Your task to perform on an android device: Clear the cart on costco.com. Search for "razer nari" on costco.com, select the first entry, and add it to the cart. Image 0: 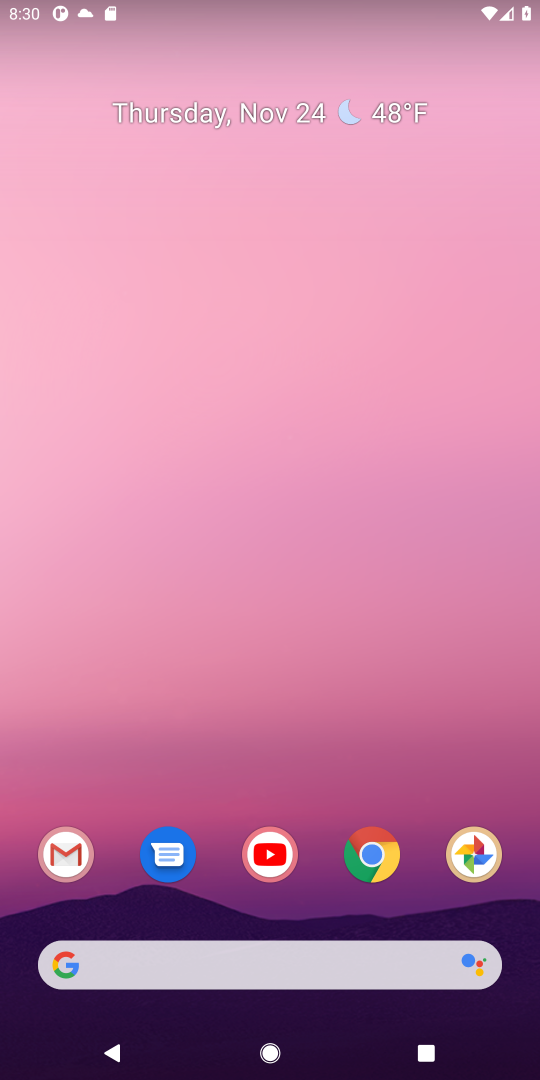
Step 0: click (377, 848)
Your task to perform on an android device: Clear the cart on costco.com. Search for "razer nari" on costco.com, select the first entry, and add it to the cart. Image 1: 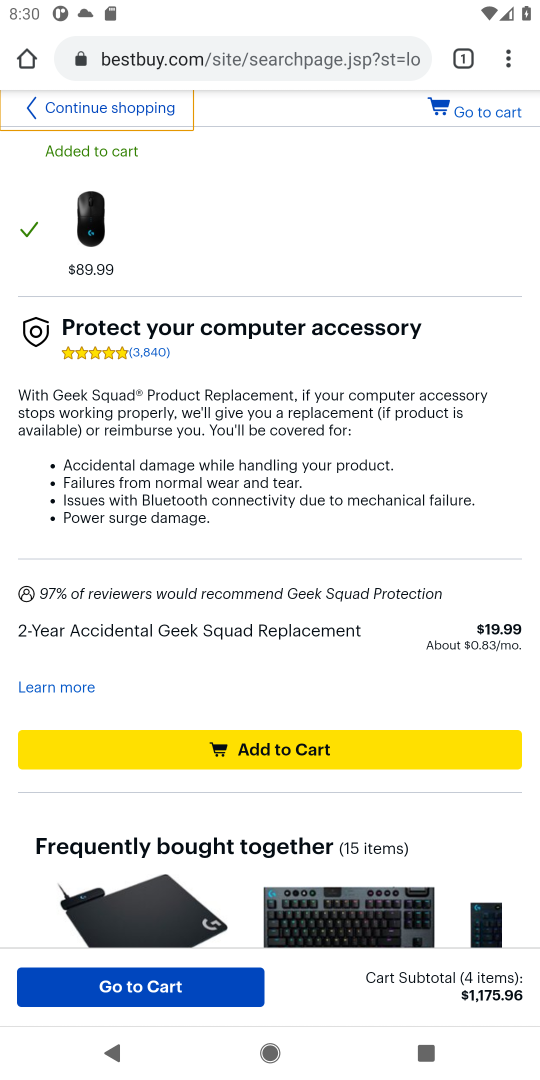
Step 1: click (210, 53)
Your task to perform on an android device: Clear the cart on costco.com. Search for "razer nari" on costco.com, select the first entry, and add it to the cart. Image 2: 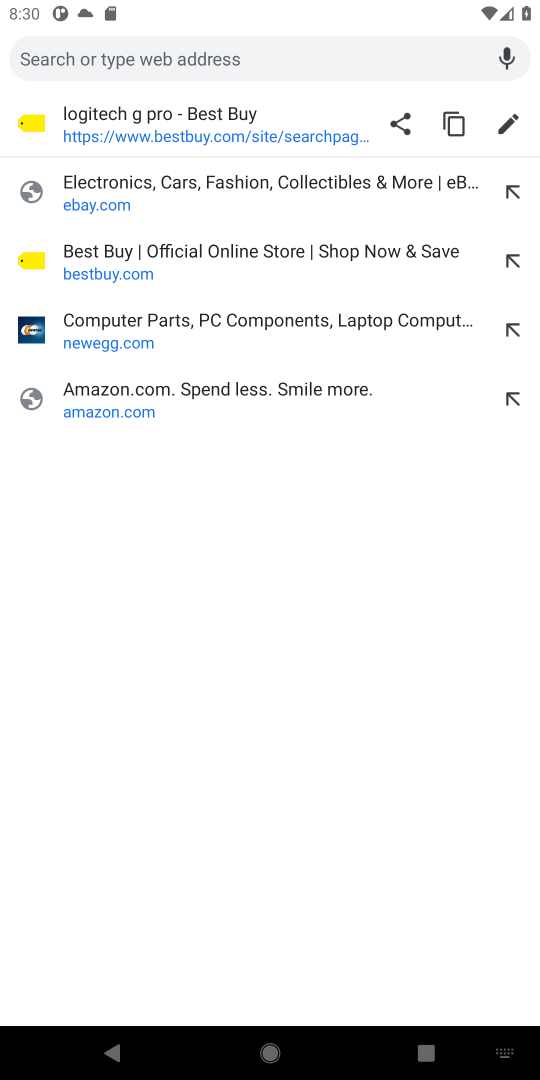
Step 2: type "costco.com"
Your task to perform on an android device: Clear the cart on costco.com. Search for "razer nari" on costco.com, select the first entry, and add it to the cart. Image 3: 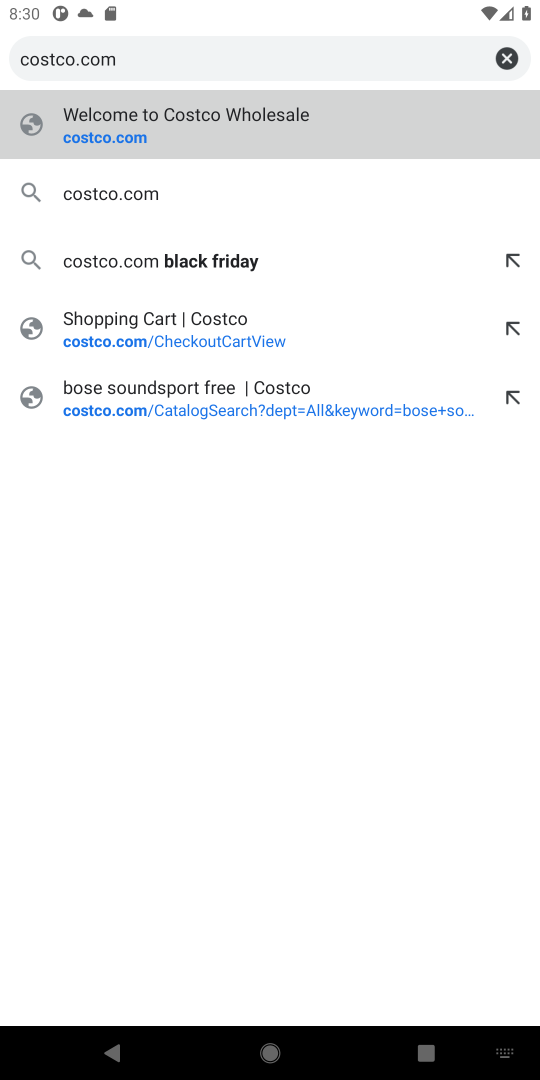
Step 3: click (95, 144)
Your task to perform on an android device: Clear the cart on costco.com. Search for "razer nari" on costco.com, select the first entry, and add it to the cart. Image 4: 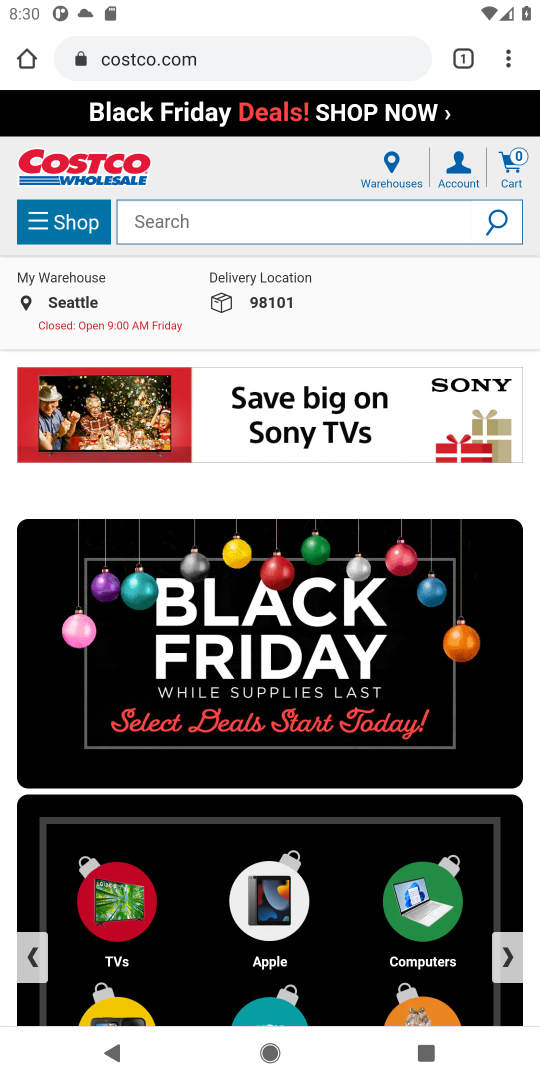
Step 4: click (508, 177)
Your task to perform on an android device: Clear the cart on costco.com. Search for "razer nari" on costco.com, select the first entry, and add it to the cart. Image 5: 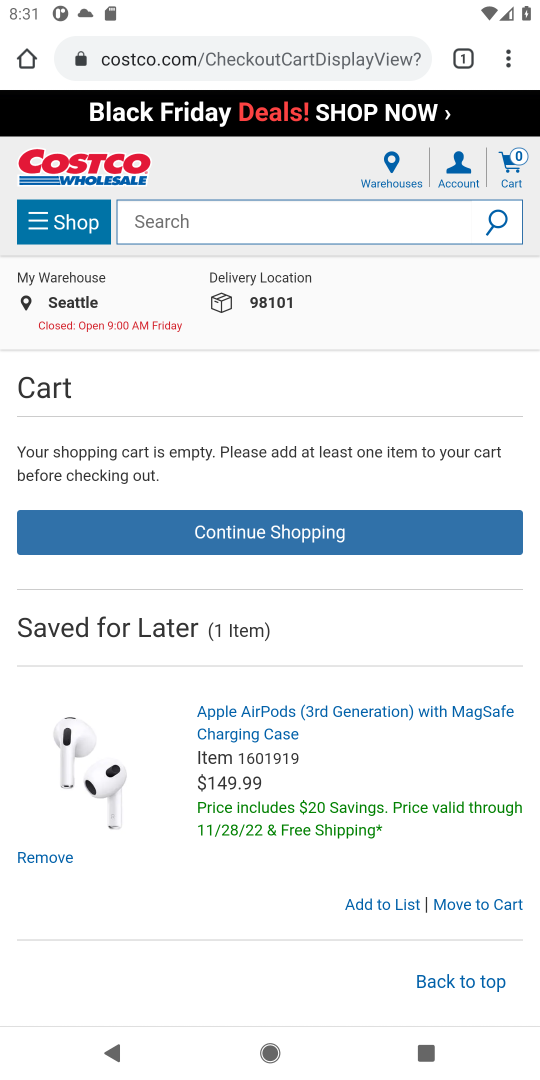
Step 5: click (242, 217)
Your task to perform on an android device: Clear the cart on costco.com. Search for "razer nari" on costco.com, select the first entry, and add it to the cart. Image 6: 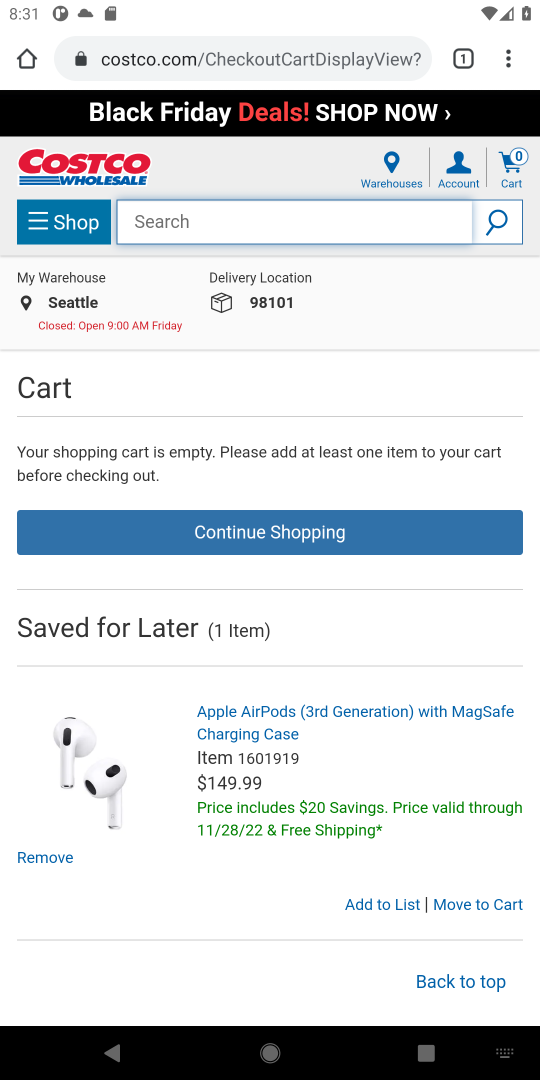
Step 6: type "razer nari"
Your task to perform on an android device: Clear the cart on costco.com. Search for "razer nari" on costco.com, select the first entry, and add it to the cart. Image 7: 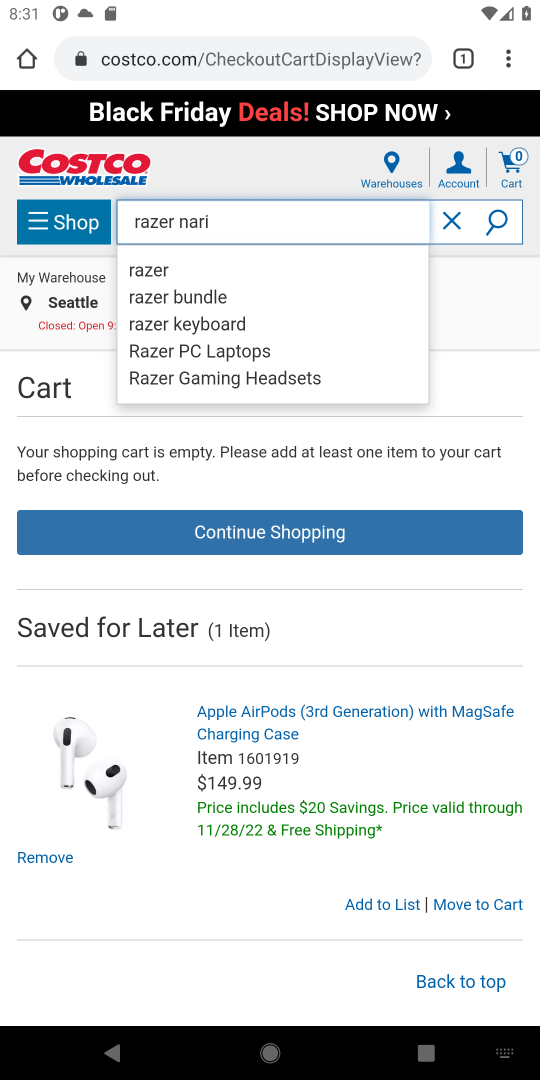
Step 7: click (498, 222)
Your task to perform on an android device: Clear the cart on costco.com. Search for "razer nari" on costco.com, select the first entry, and add it to the cart. Image 8: 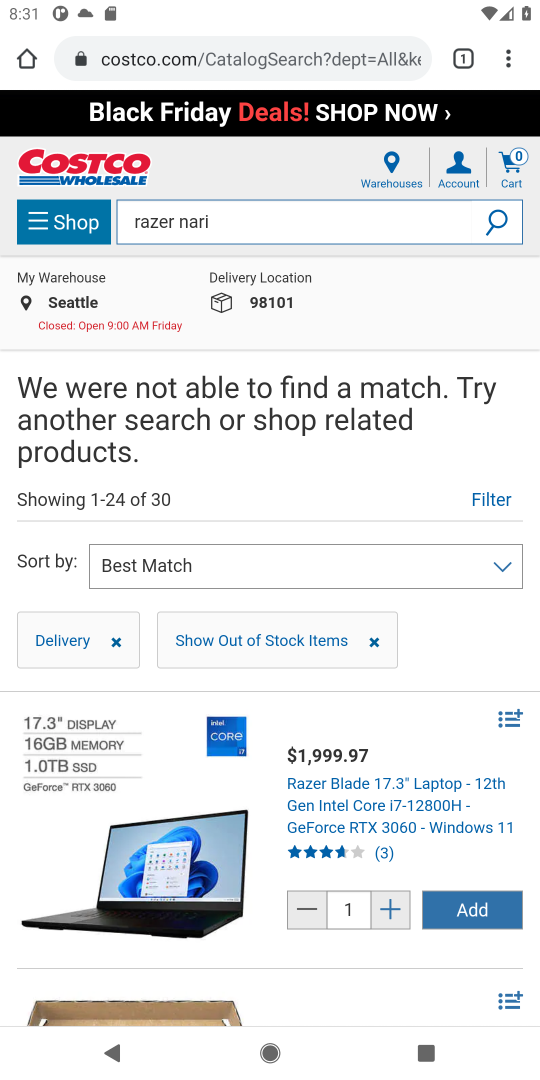
Step 8: task complete